Your task to perform on an android device: Do I have any events tomorrow? Image 0: 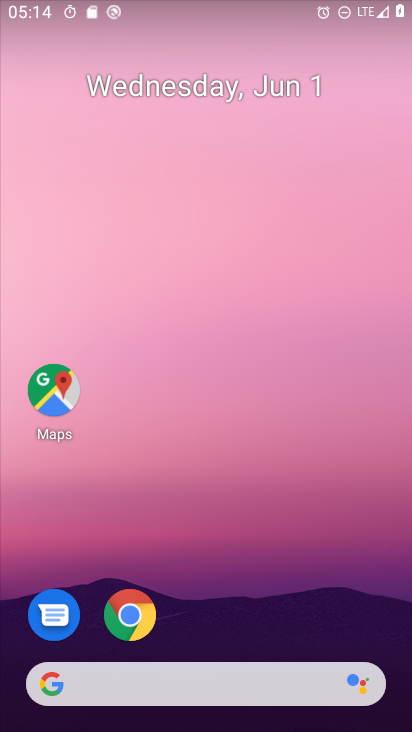
Step 0: drag from (251, 680) to (296, 71)
Your task to perform on an android device: Do I have any events tomorrow? Image 1: 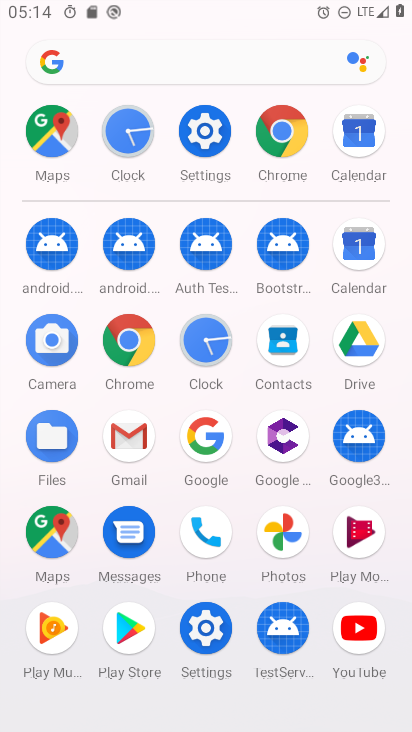
Step 1: click (356, 251)
Your task to perform on an android device: Do I have any events tomorrow? Image 2: 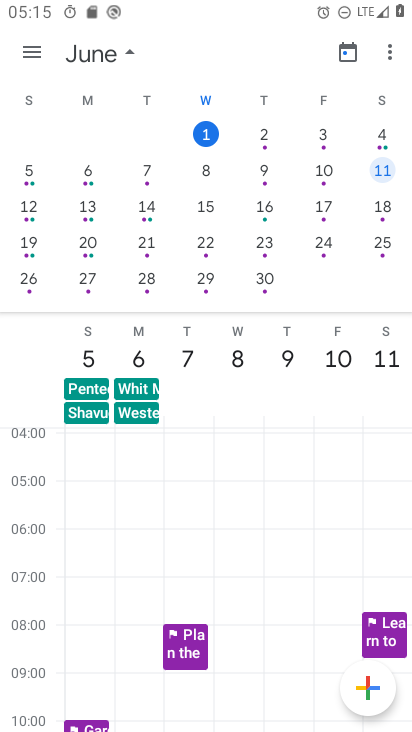
Step 2: click (258, 131)
Your task to perform on an android device: Do I have any events tomorrow? Image 3: 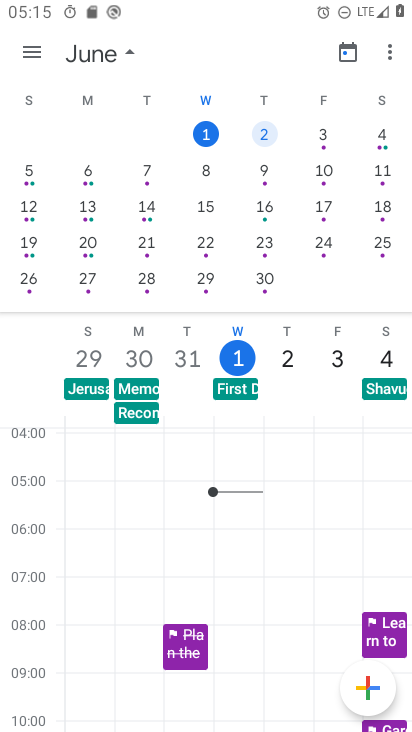
Step 3: task complete